Your task to perform on an android device: Search for a 100 ft extension cord Image 0: 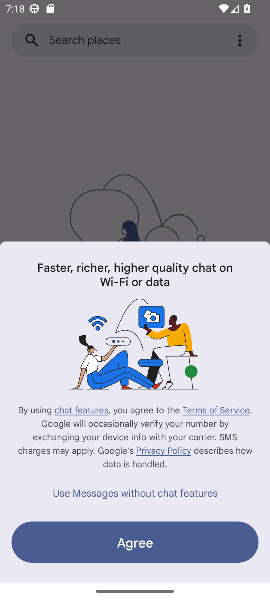
Step 0: press home button
Your task to perform on an android device: Search for a 100 ft extension cord Image 1: 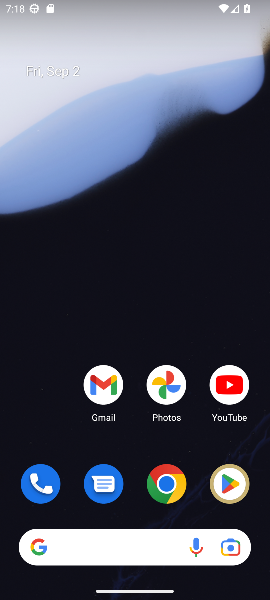
Step 1: click (170, 473)
Your task to perform on an android device: Search for a 100 ft extension cord Image 2: 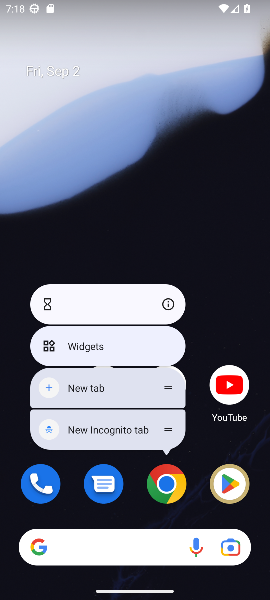
Step 2: click (170, 473)
Your task to perform on an android device: Search for a 100 ft extension cord Image 3: 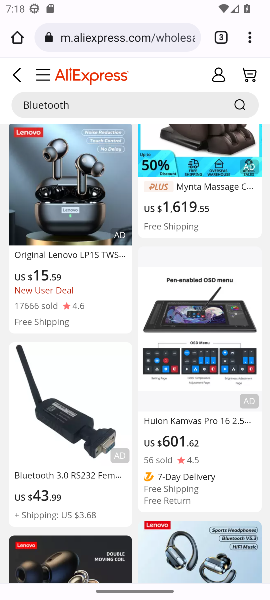
Step 3: click (125, 38)
Your task to perform on an android device: Search for a 100 ft extension cord Image 4: 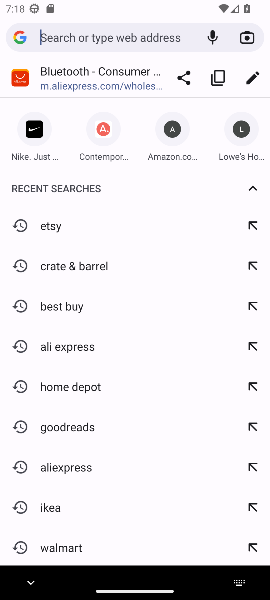
Step 4: type "100 ft extension cord"
Your task to perform on an android device: Search for a 100 ft extension cord Image 5: 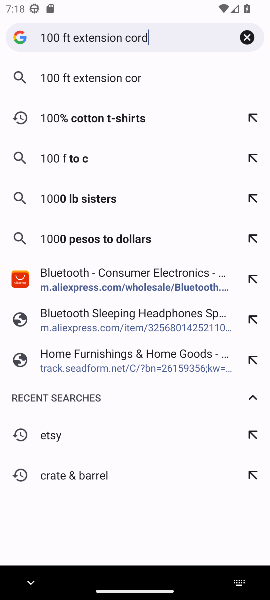
Step 5: press enter
Your task to perform on an android device: Search for a 100 ft extension cord Image 6: 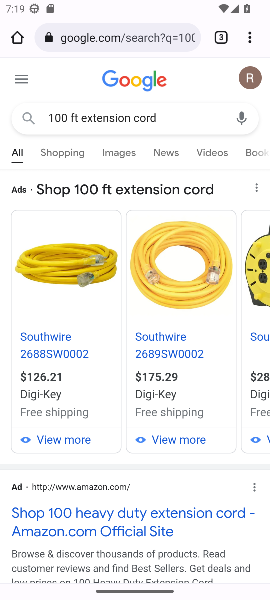
Step 6: task complete